Your task to perform on an android device: turn on the 24-hour format for clock Image 0: 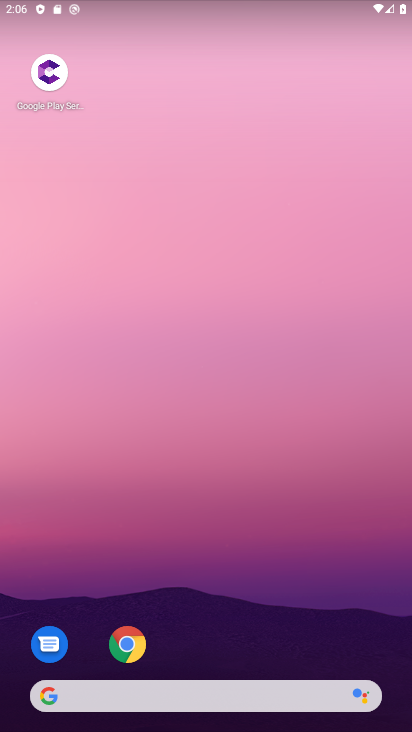
Step 0: drag from (198, 602) to (283, 93)
Your task to perform on an android device: turn on the 24-hour format for clock Image 1: 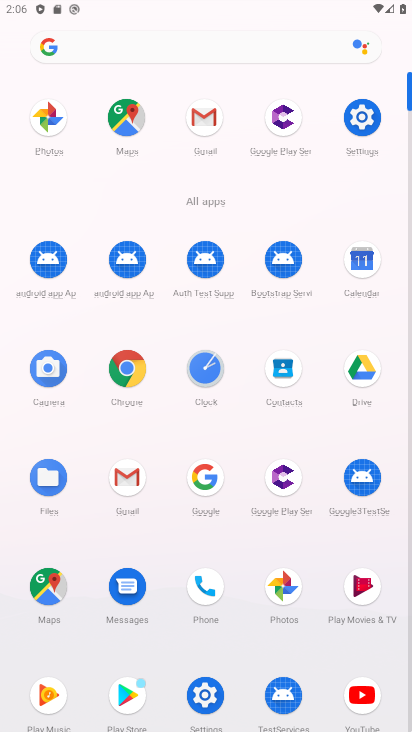
Step 1: click (207, 364)
Your task to perform on an android device: turn on the 24-hour format for clock Image 2: 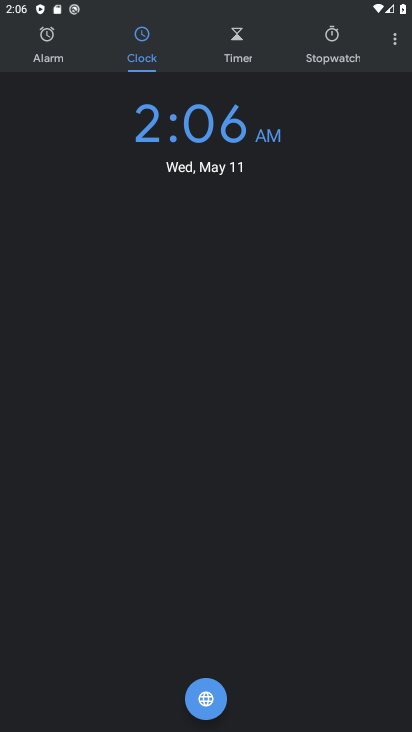
Step 2: click (398, 34)
Your task to perform on an android device: turn on the 24-hour format for clock Image 3: 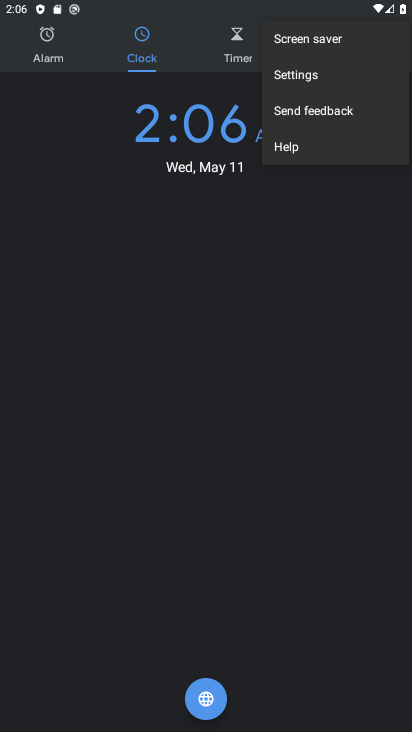
Step 3: click (312, 83)
Your task to perform on an android device: turn on the 24-hour format for clock Image 4: 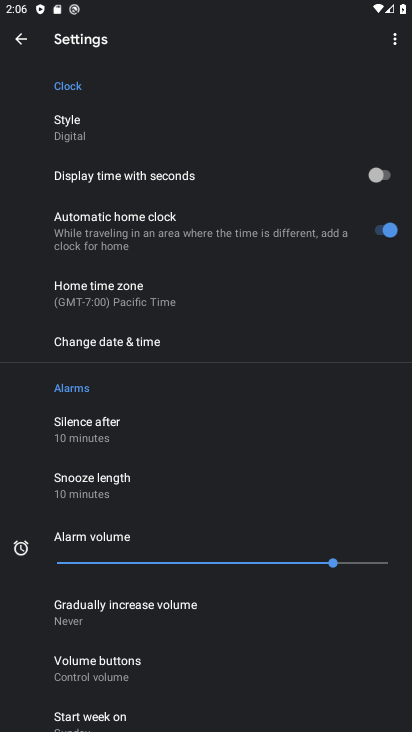
Step 4: click (111, 338)
Your task to perform on an android device: turn on the 24-hour format for clock Image 5: 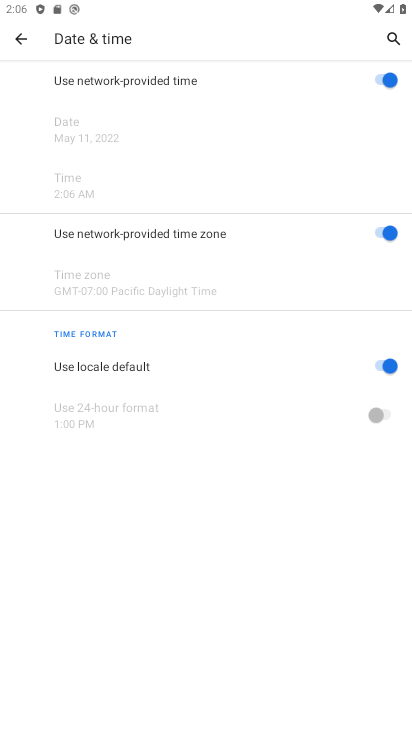
Step 5: click (387, 365)
Your task to perform on an android device: turn on the 24-hour format for clock Image 6: 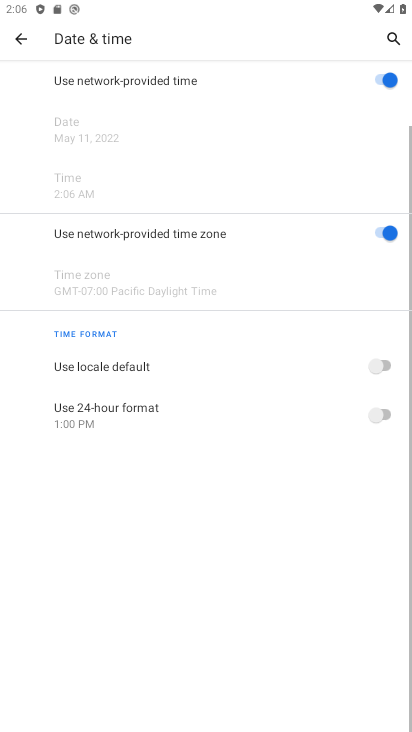
Step 6: click (378, 414)
Your task to perform on an android device: turn on the 24-hour format for clock Image 7: 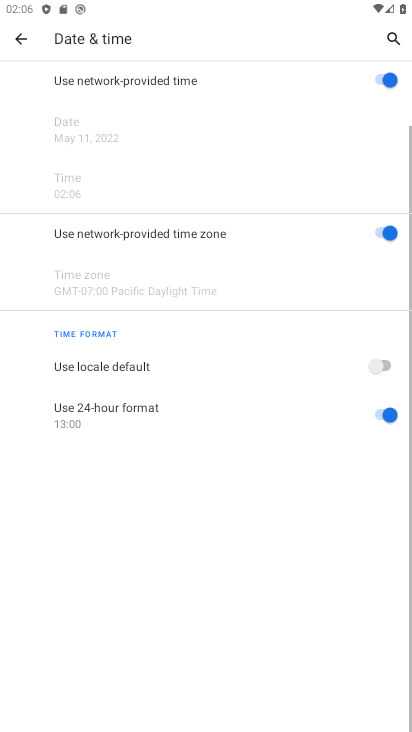
Step 7: task complete